Your task to perform on an android device: toggle wifi Image 0: 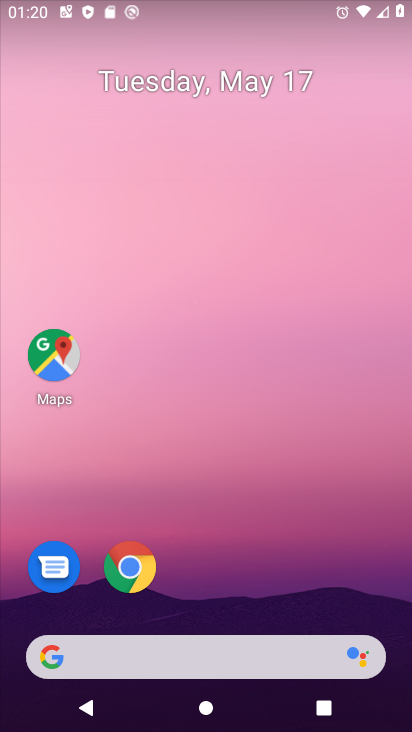
Step 0: drag from (260, 527) to (189, 0)
Your task to perform on an android device: toggle wifi Image 1: 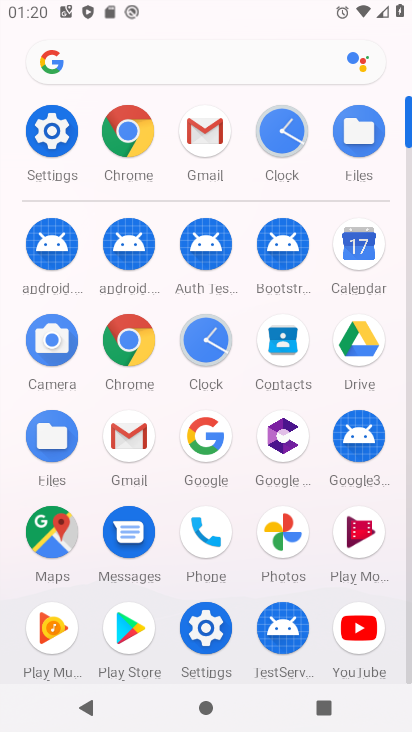
Step 1: click (38, 127)
Your task to perform on an android device: toggle wifi Image 2: 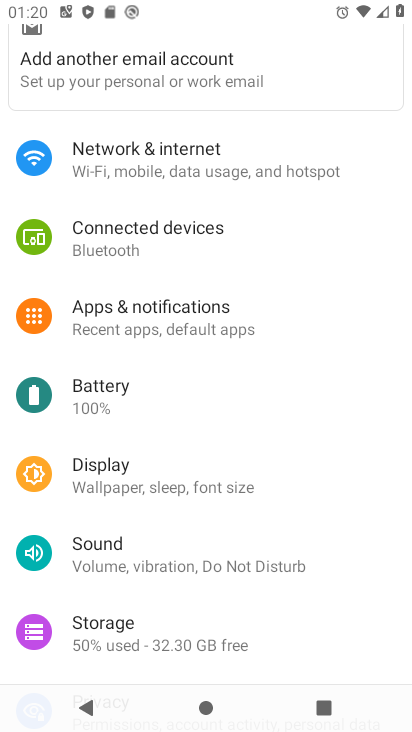
Step 2: click (145, 153)
Your task to perform on an android device: toggle wifi Image 3: 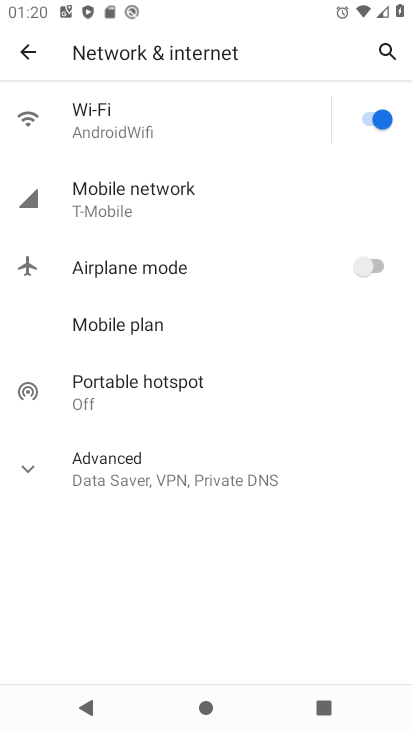
Step 3: click (374, 112)
Your task to perform on an android device: toggle wifi Image 4: 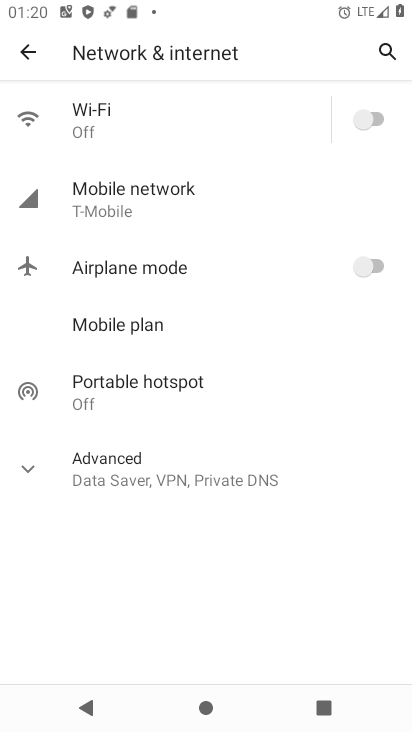
Step 4: task complete